Your task to perform on an android device: What is the recent news? Image 0: 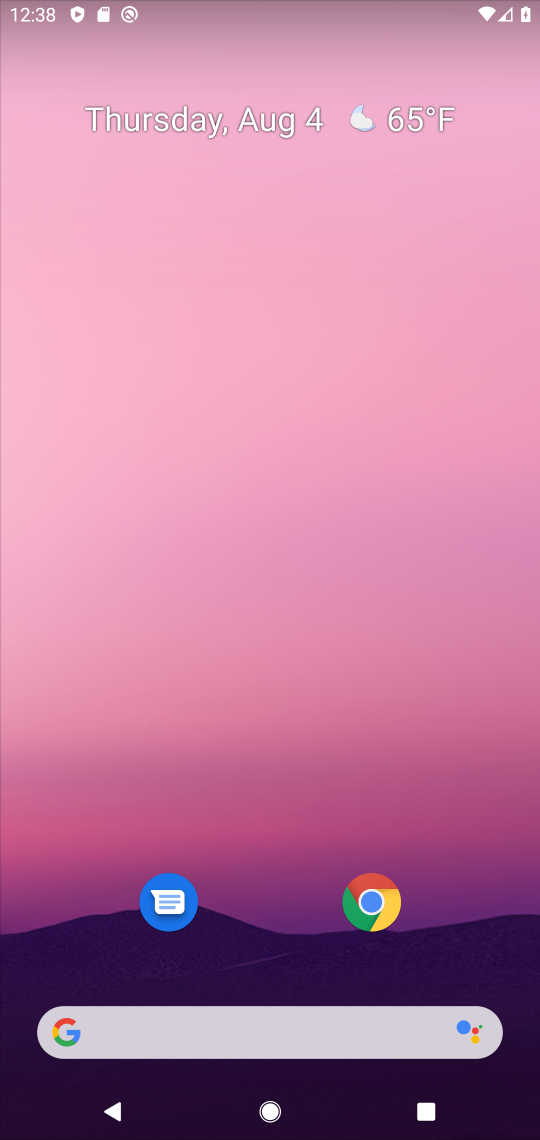
Step 0: drag from (9, 564) to (522, 558)
Your task to perform on an android device: What is the recent news? Image 1: 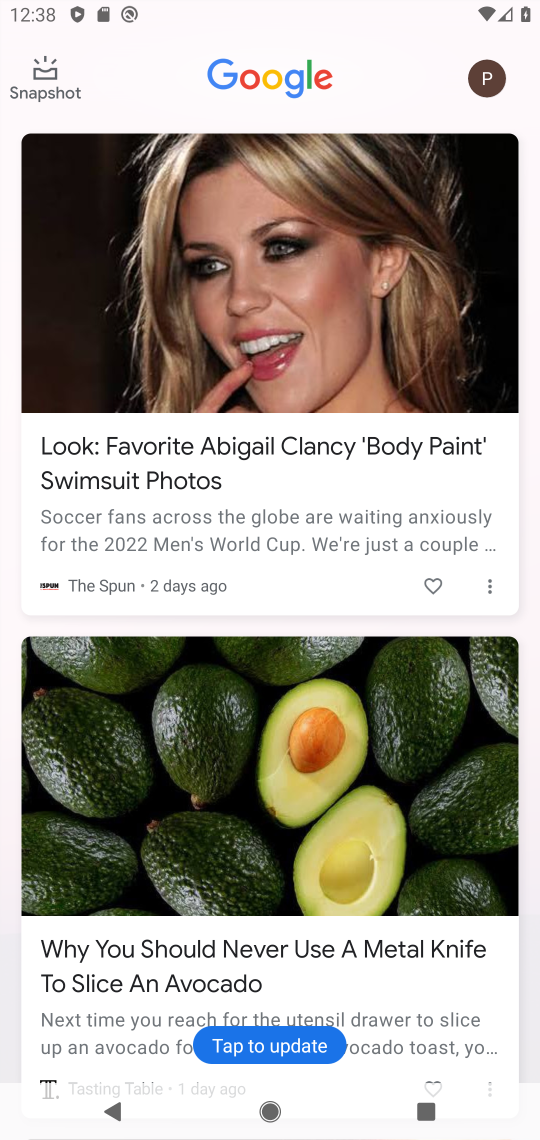
Step 1: task complete